Your task to perform on an android device: open chrome privacy settings Image 0: 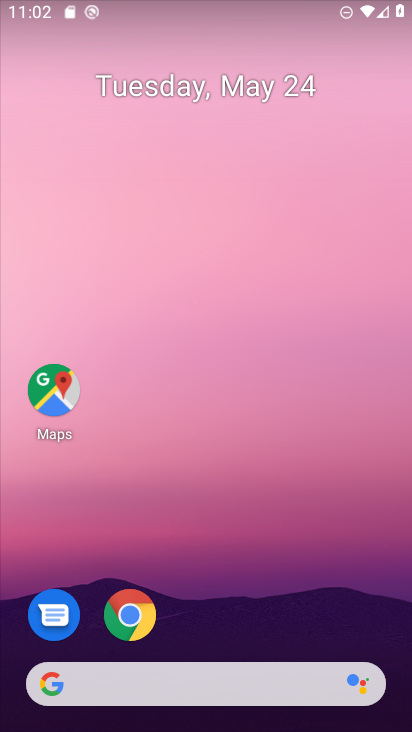
Step 0: press home button
Your task to perform on an android device: open chrome privacy settings Image 1: 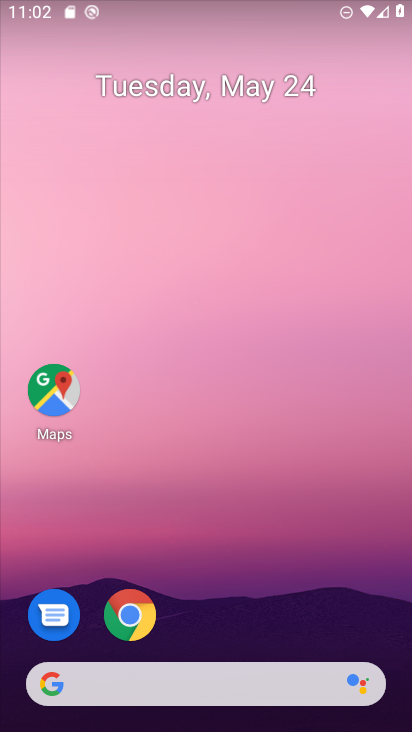
Step 1: drag from (263, 720) to (309, 180)
Your task to perform on an android device: open chrome privacy settings Image 2: 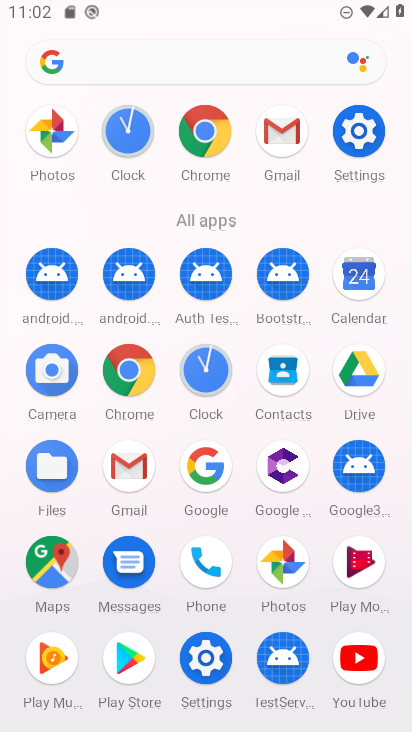
Step 2: click (366, 133)
Your task to perform on an android device: open chrome privacy settings Image 3: 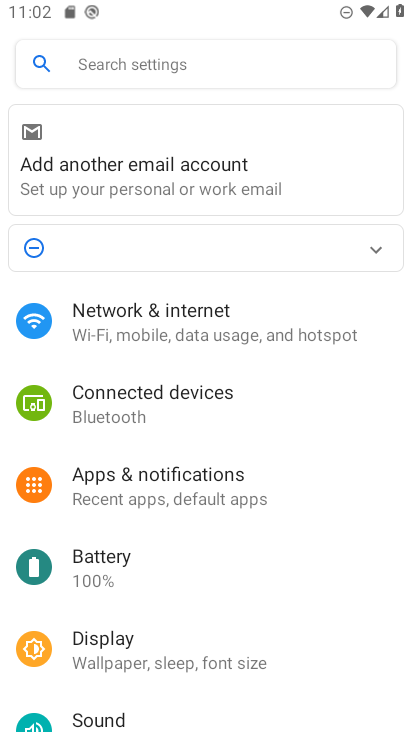
Step 3: press home button
Your task to perform on an android device: open chrome privacy settings Image 4: 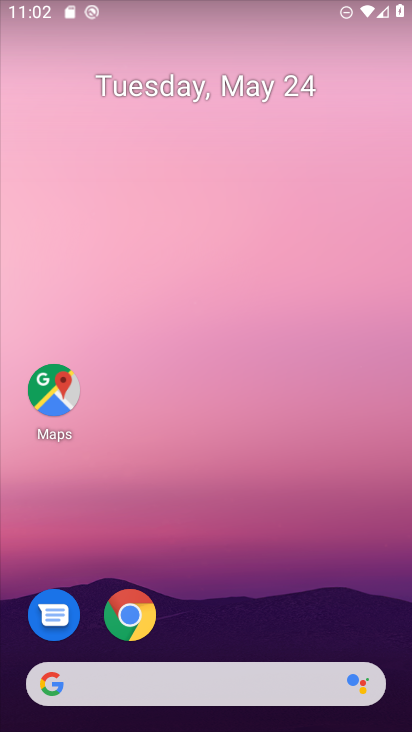
Step 4: drag from (254, 706) to (273, 114)
Your task to perform on an android device: open chrome privacy settings Image 5: 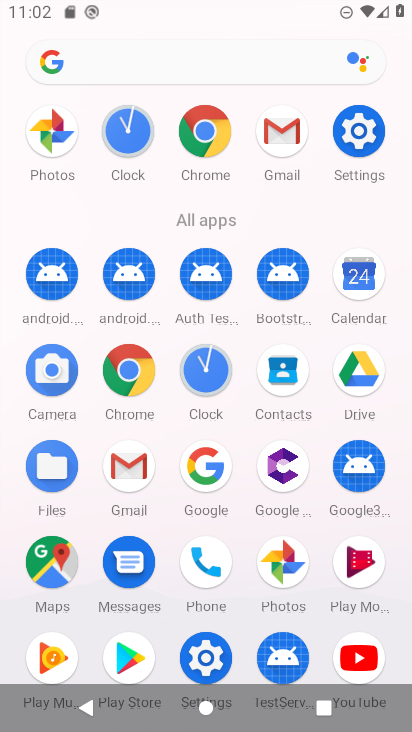
Step 5: click (195, 125)
Your task to perform on an android device: open chrome privacy settings Image 6: 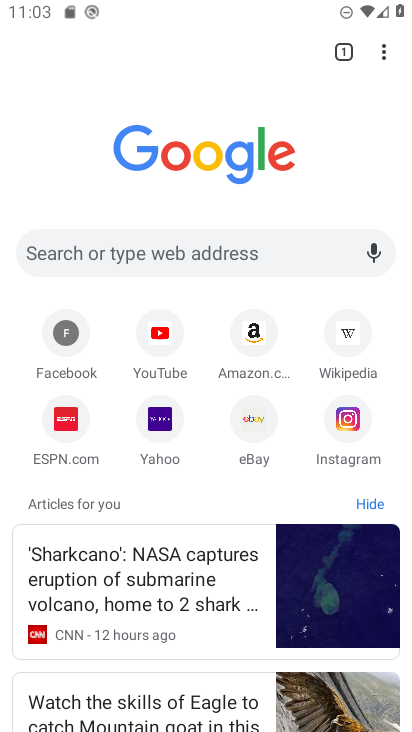
Step 6: click (384, 74)
Your task to perform on an android device: open chrome privacy settings Image 7: 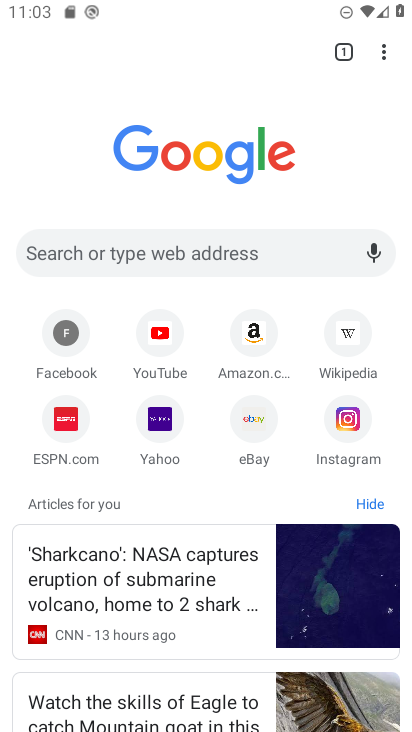
Step 7: click (387, 61)
Your task to perform on an android device: open chrome privacy settings Image 8: 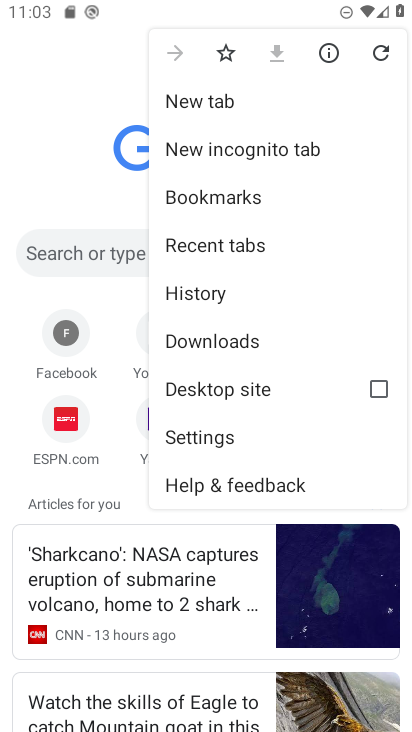
Step 8: click (242, 430)
Your task to perform on an android device: open chrome privacy settings Image 9: 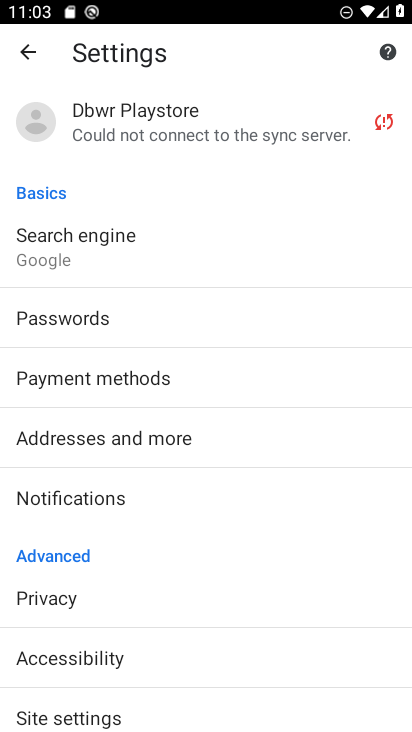
Step 9: drag from (153, 589) to (172, 423)
Your task to perform on an android device: open chrome privacy settings Image 10: 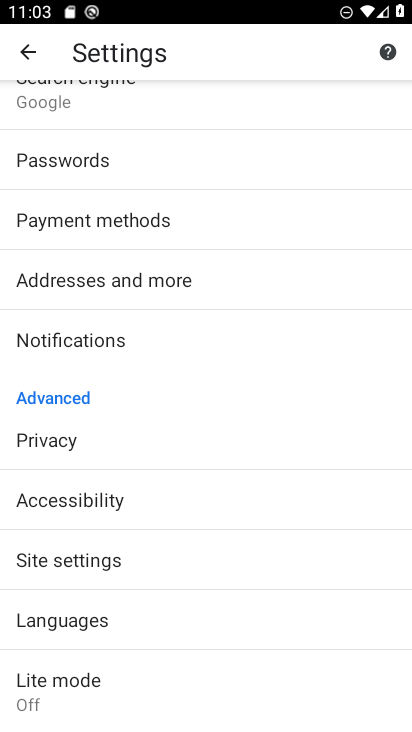
Step 10: click (59, 445)
Your task to perform on an android device: open chrome privacy settings Image 11: 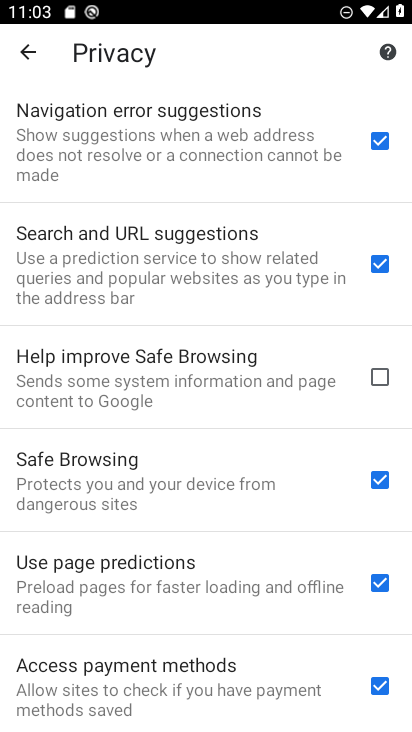
Step 11: task complete